Your task to perform on an android device: Open sound settings Image 0: 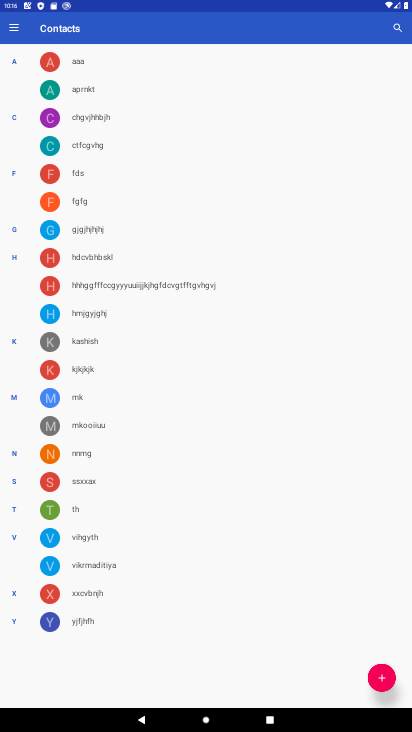
Step 0: press home button
Your task to perform on an android device: Open sound settings Image 1: 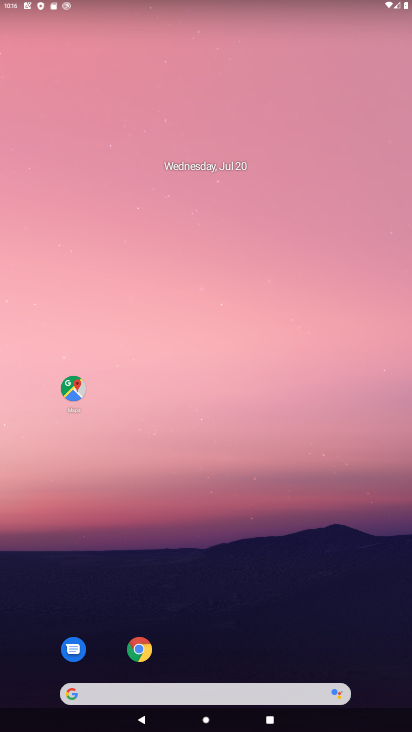
Step 1: drag from (197, 664) to (311, 196)
Your task to perform on an android device: Open sound settings Image 2: 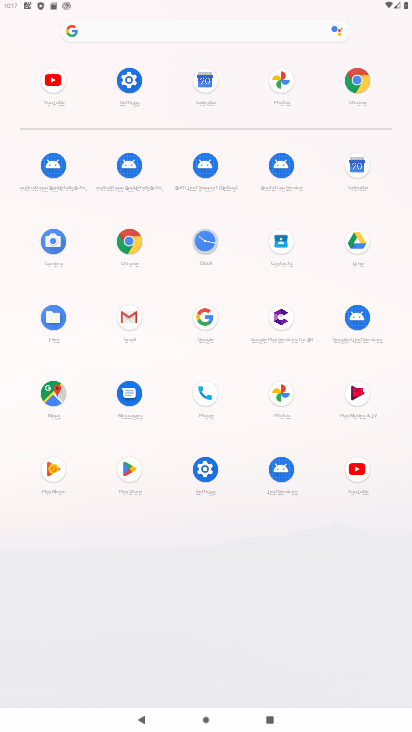
Step 2: click (126, 111)
Your task to perform on an android device: Open sound settings Image 3: 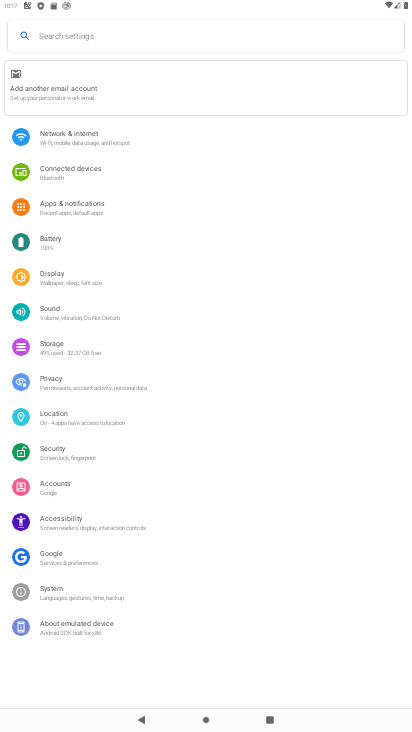
Step 3: click (95, 308)
Your task to perform on an android device: Open sound settings Image 4: 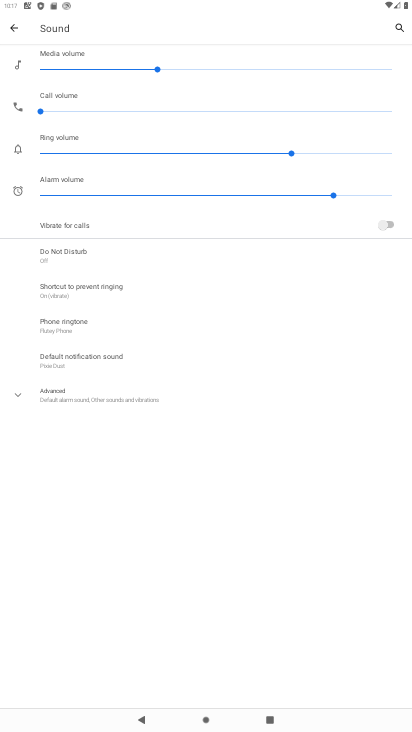
Step 4: task complete